Your task to perform on an android device: stop showing notifications on the lock screen Image 0: 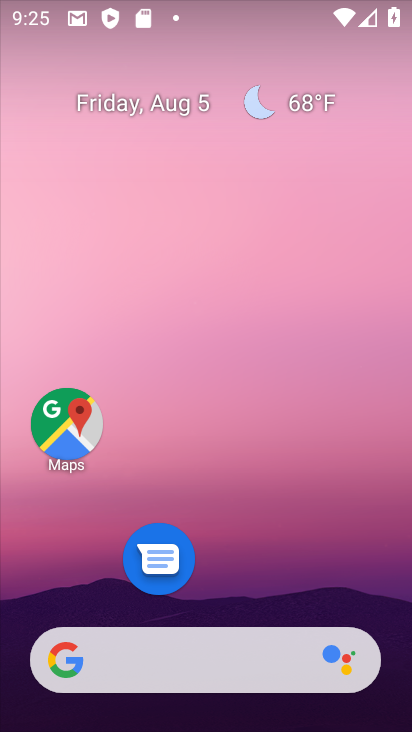
Step 0: drag from (155, 482) to (179, 2)
Your task to perform on an android device: stop showing notifications on the lock screen Image 1: 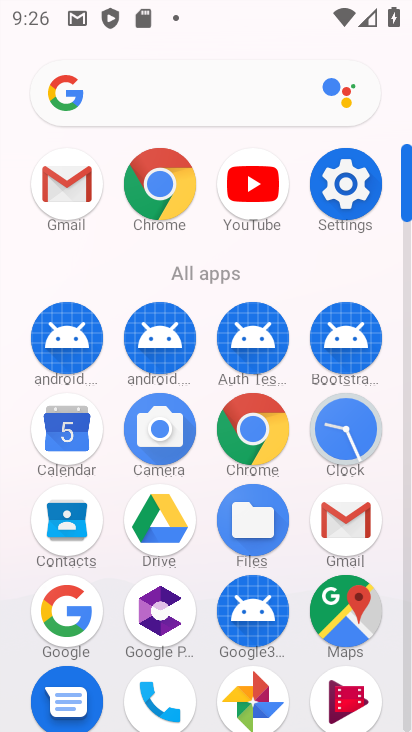
Step 1: click (338, 194)
Your task to perform on an android device: stop showing notifications on the lock screen Image 2: 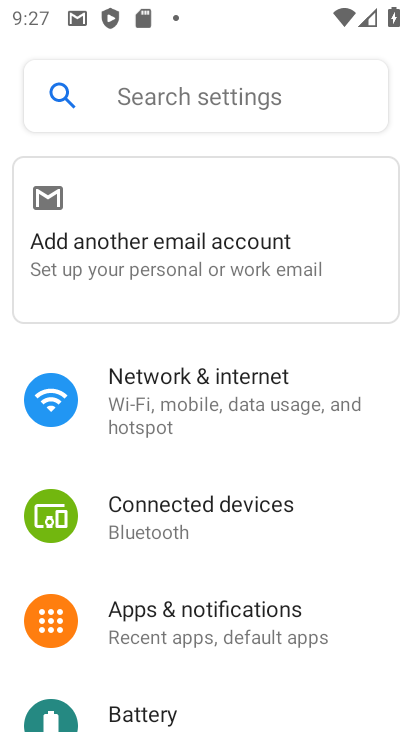
Step 2: click (229, 629)
Your task to perform on an android device: stop showing notifications on the lock screen Image 3: 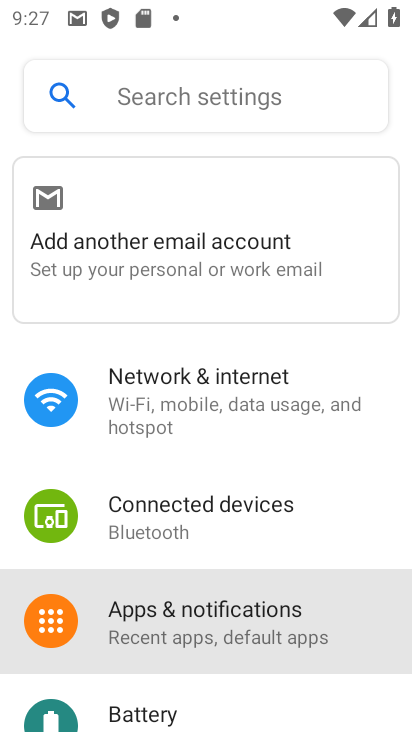
Step 3: click (229, 629)
Your task to perform on an android device: stop showing notifications on the lock screen Image 4: 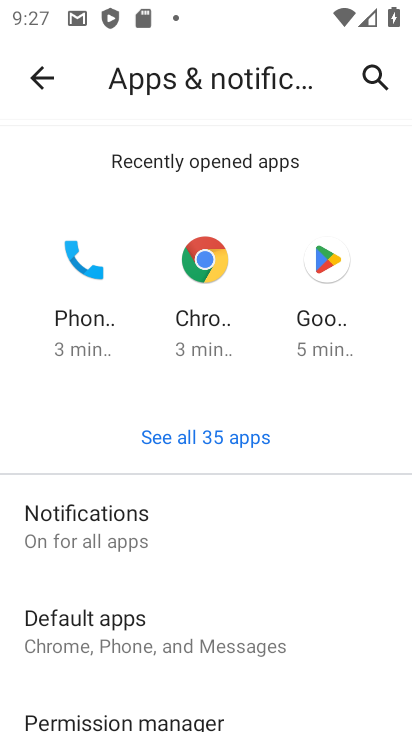
Step 4: click (159, 521)
Your task to perform on an android device: stop showing notifications on the lock screen Image 5: 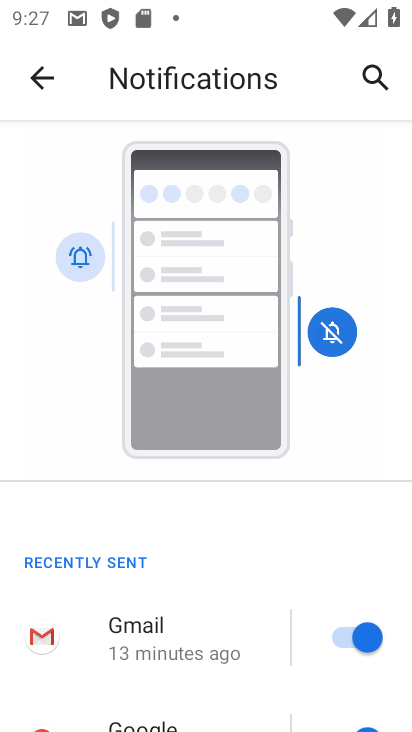
Step 5: drag from (199, 631) to (223, 102)
Your task to perform on an android device: stop showing notifications on the lock screen Image 6: 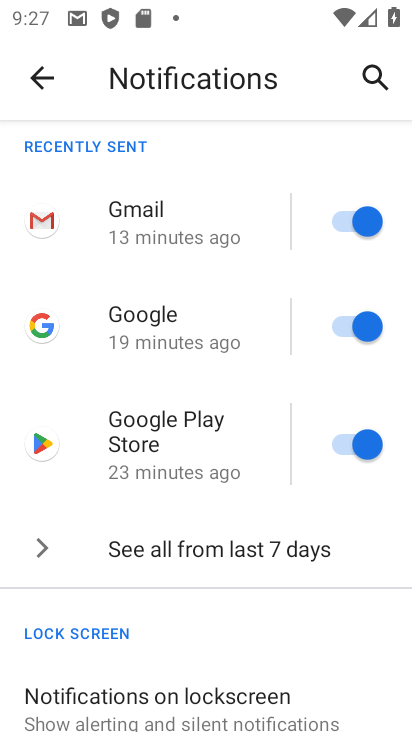
Step 6: click (181, 696)
Your task to perform on an android device: stop showing notifications on the lock screen Image 7: 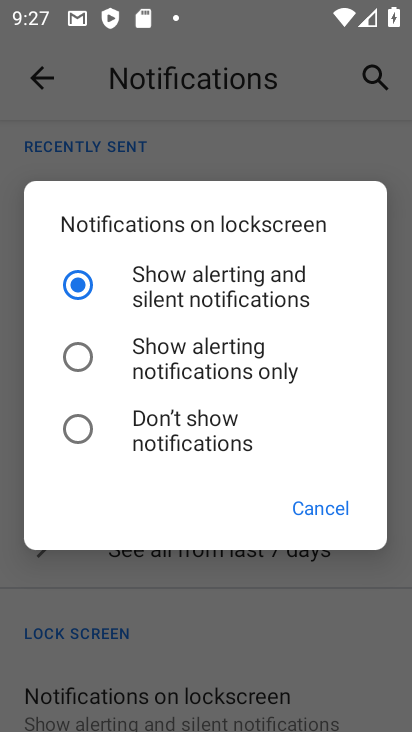
Step 7: click (86, 425)
Your task to perform on an android device: stop showing notifications on the lock screen Image 8: 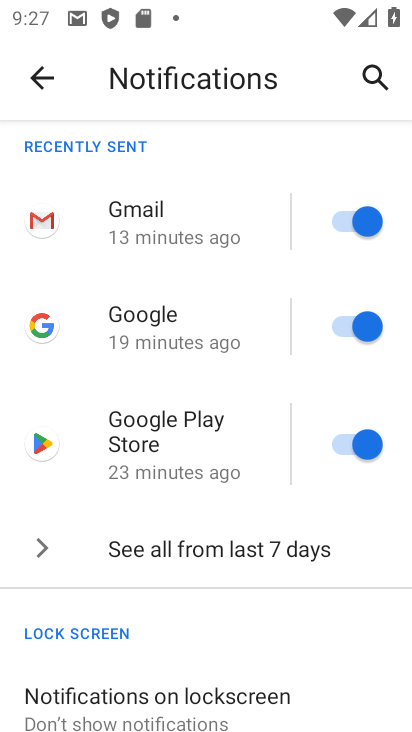
Step 8: task complete